Your task to perform on an android device: Search for pizza restaurants on Maps Image 0: 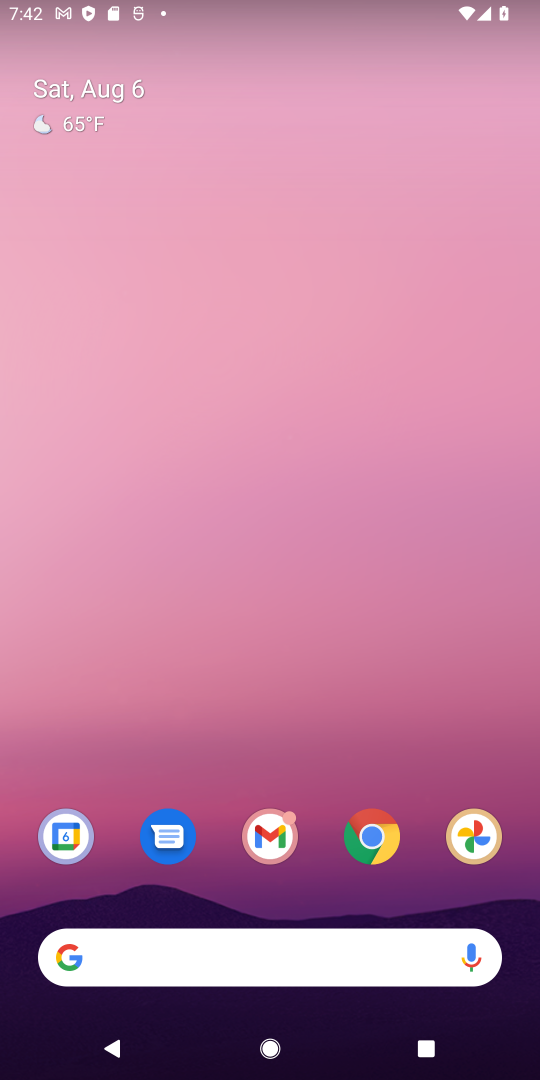
Step 0: drag from (403, 746) to (307, 116)
Your task to perform on an android device: Search for pizza restaurants on Maps Image 1: 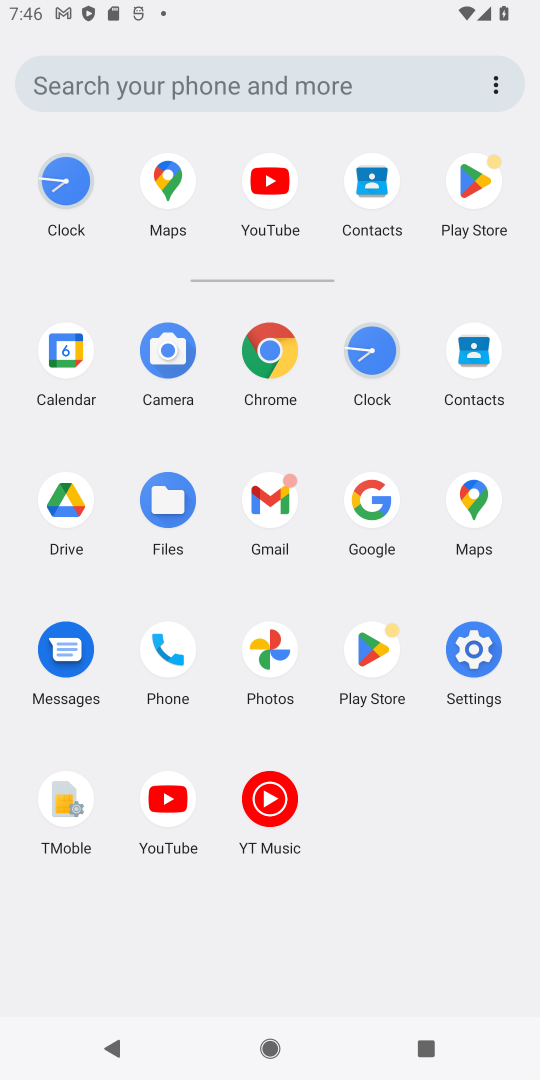
Step 1: click (476, 507)
Your task to perform on an android device: Search for pizza restaurants on Maps Image 2: 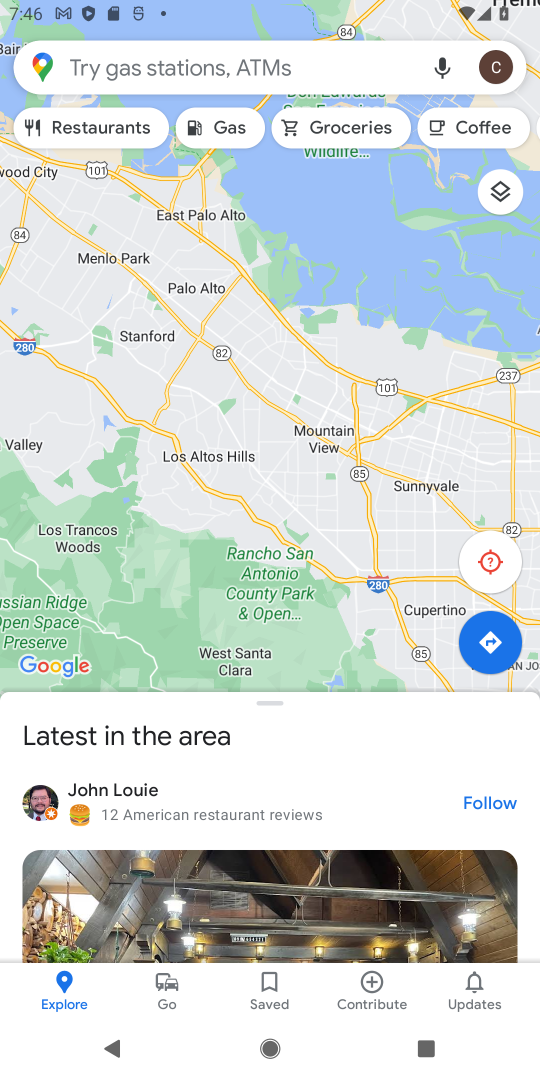
Step 2: click (303, 93)
Your task to perform on an android device: Search for pizza restaurants on Maps Image 3: 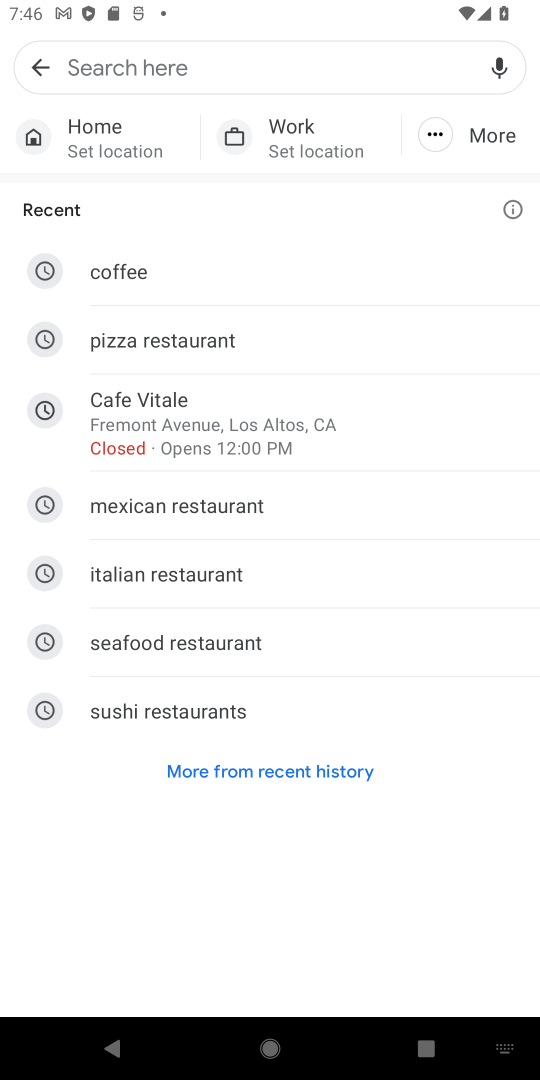
Step 3: click (151, 343)
Your task to perform on an android device: Search for pizza restaurants on Maps Image 4: 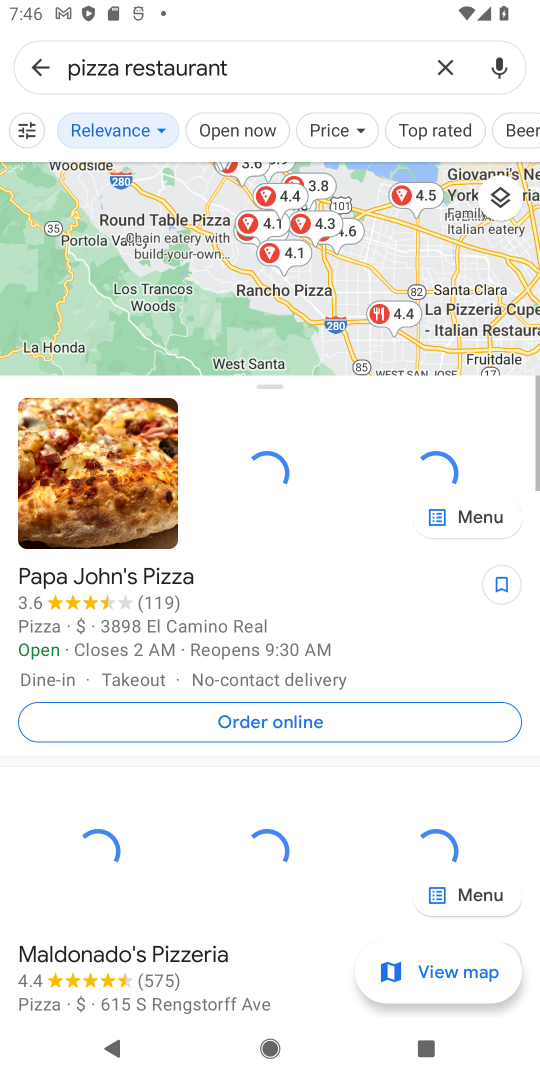
Step 4: task complete